Your task to perform on an android device: toggle data saver in the chrome app Image 0: 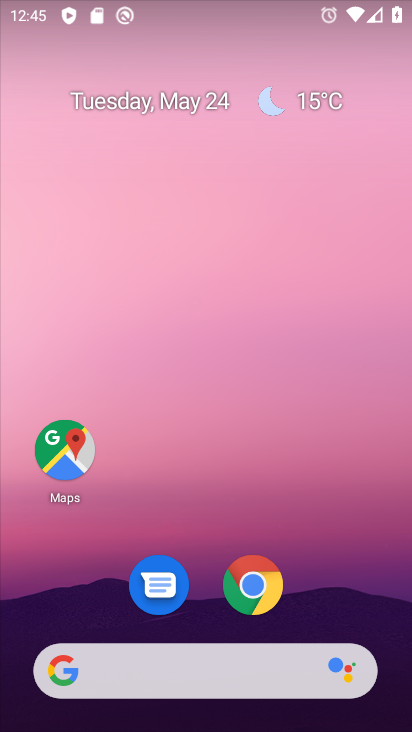
Step 0: click (250, 586)
Your task to perform on an android device: toggle data saver in the chrome app Image 1: 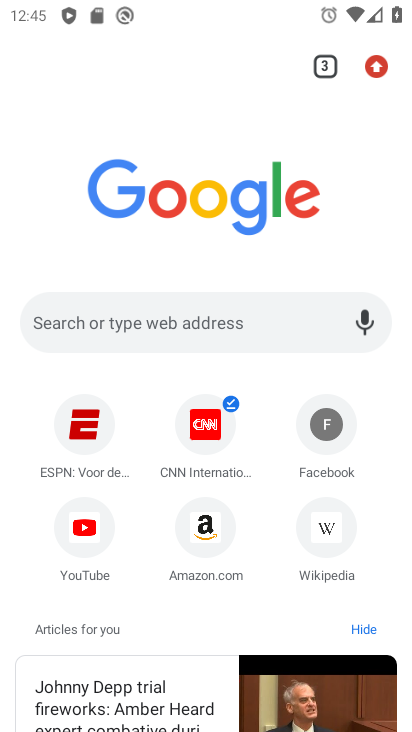
Step 1: click (372, 59)
Your task to perform on an android device: toggle data saver in the chrome app Image 2: 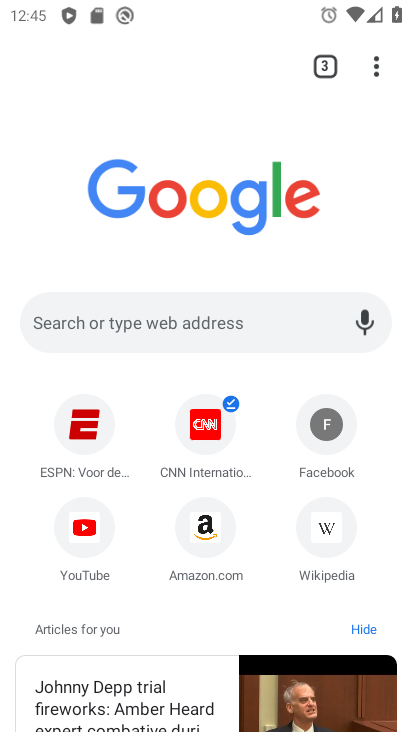
Step 2: click (374, 62)
Your task to perform on an android device: toggle data saver in the chrome app Image 3: 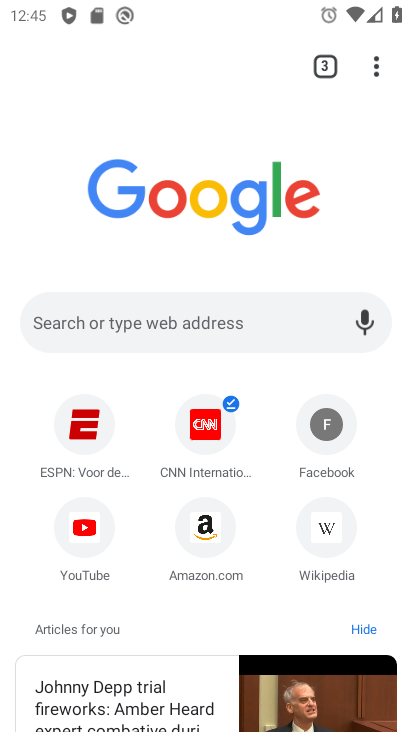
Step 3: click (374, 63)
Your task to perform on an android device: toggle data saver in the chrome app Image 4: 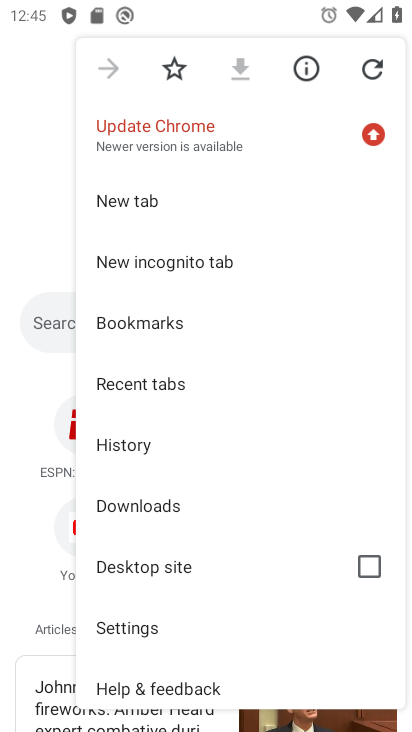
Step 4: click (200, 625)
Your task to perform on an android device: toggle data saver in the chrome app Image 5: 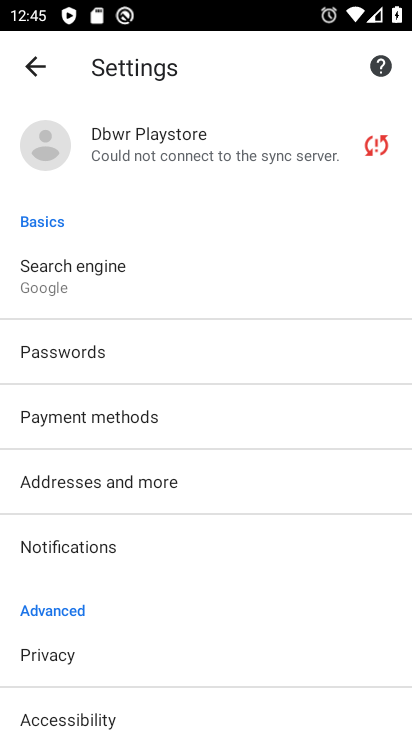
Step 5: drag from (240, 588) to (245, 321)
Your task to perform on an android device: toggle data saver in the chrome app Image 6: 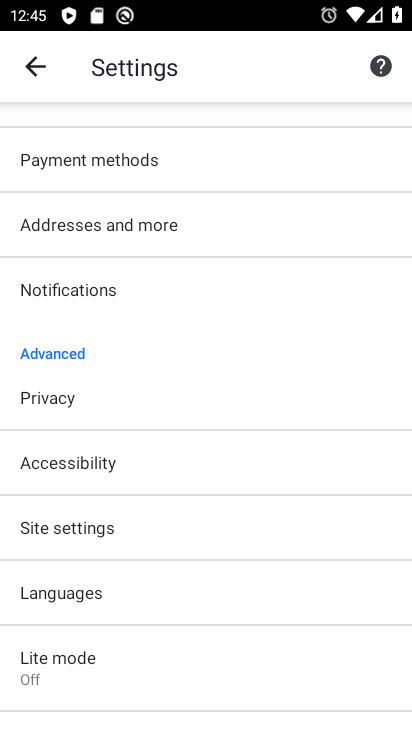
Step 6: click (191, 524)
Your task to perform on an android device: toggle data saver in the chrome app Image 7: 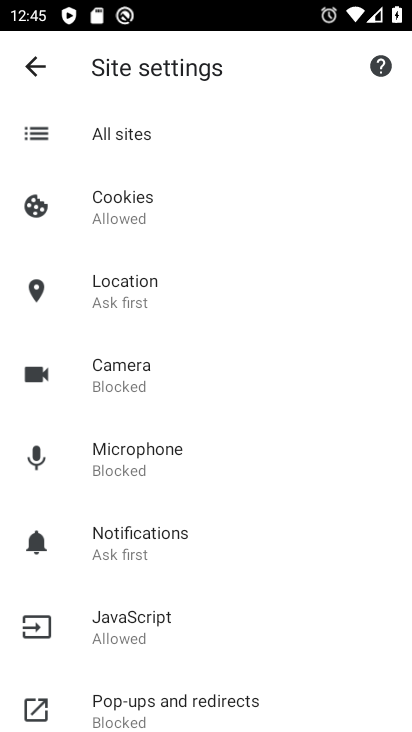
Step 7: click (40, 64)
Your task to perform on an android device: toggle data saver in the chrome app Image 8: 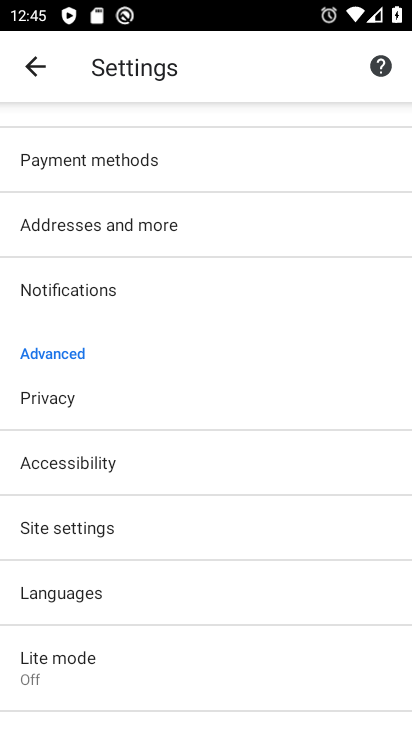
Step 8: click (212, 673)
Your task to perform on an android device: toggle data saver in the chrome app Image 9: 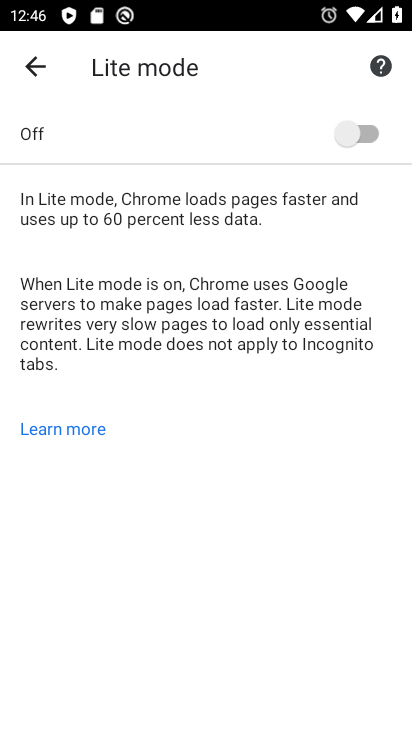
Step 9: click (355, 127)
Your task to perform on an android device: toggle data saver in the chrome app Image 10: 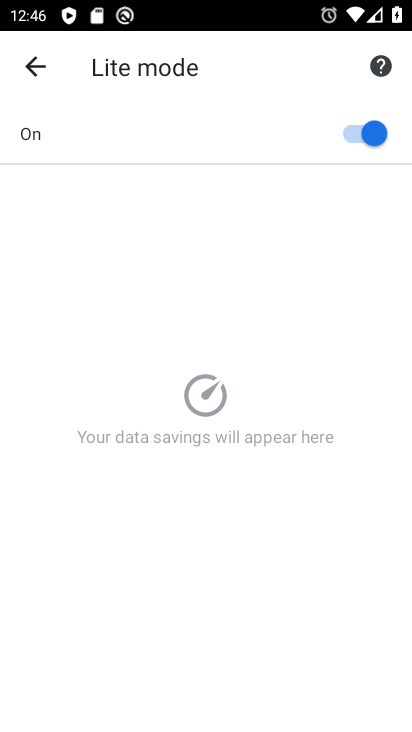
Step 10: task complete